Your task to perform on an android device: Open Google Chrome and open the bookmarks view Image 0: 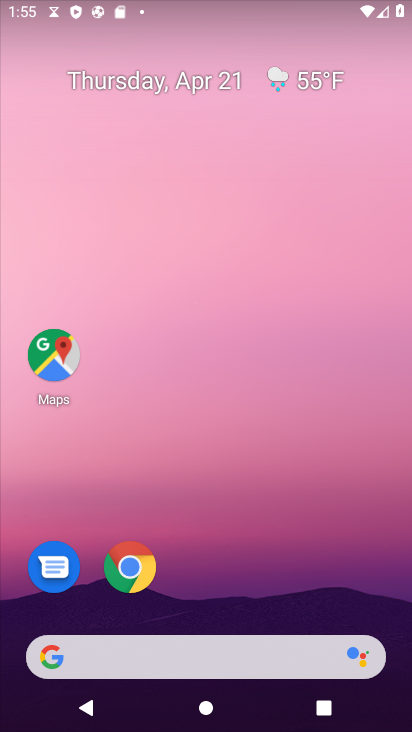
Step 0: drag from (171, 662) to (313, 129)
Your task to perform on an android device: Open Google Chrome and open the bookmarks view Image 1: 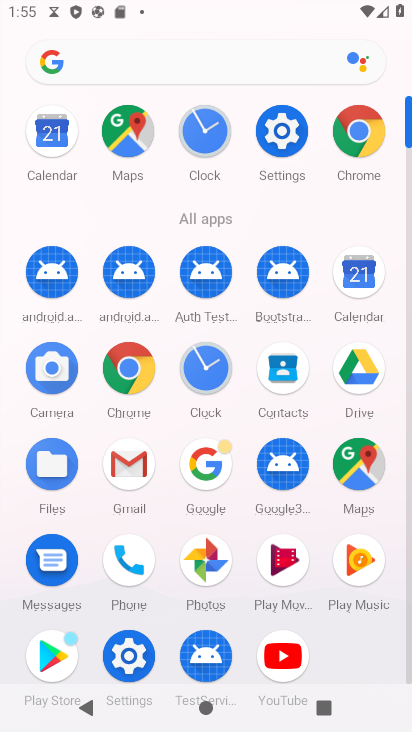
Step 1: click (365, 142)
Your task to perform on an android device: Open Google Chrome and open the bookmarks view Image 2: 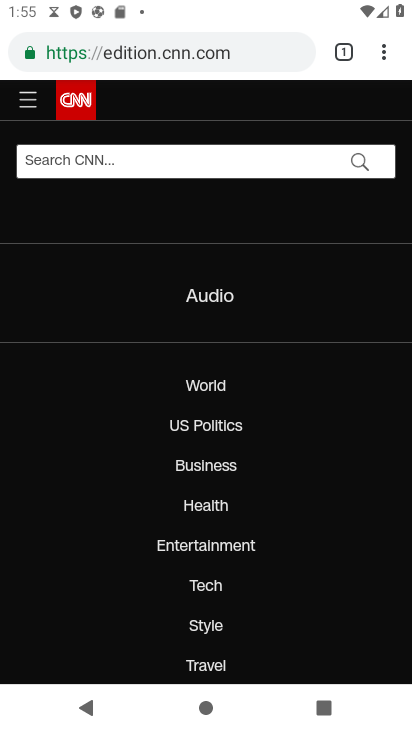
Step 2: click (390, 62)
Your task to perform on an android device: Open Google Chrome and open the bookmarks view Image 3: 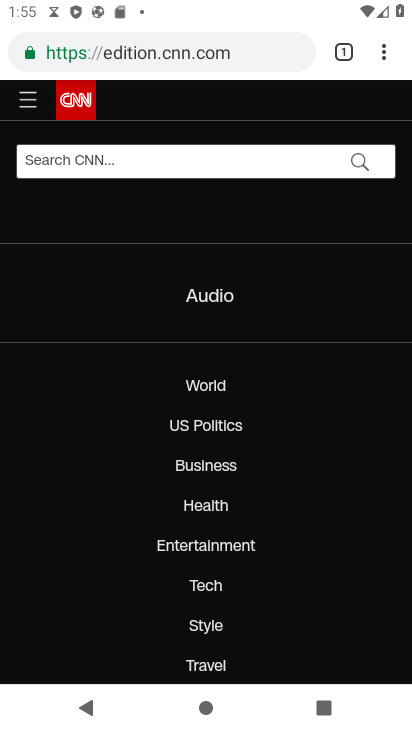
Step 3: click (376, 58)
Your task to perform on an android device: Open Google Chrome and open the bookmarks view Image 4: 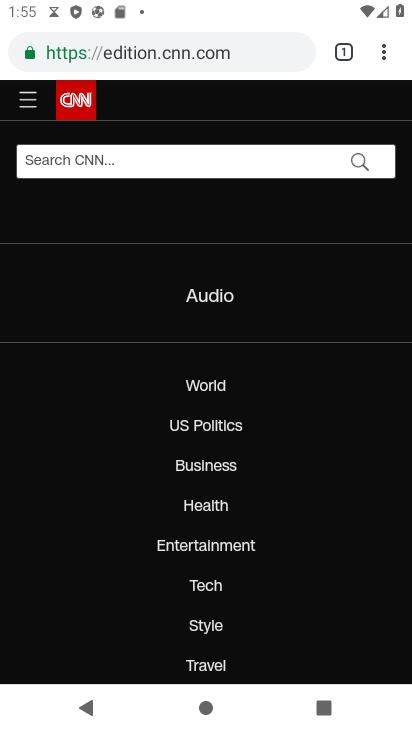
Step 4: click (375, 68)
Your task to perform on an android device: Open Google Chrome and open the bookmarks view Image 5: 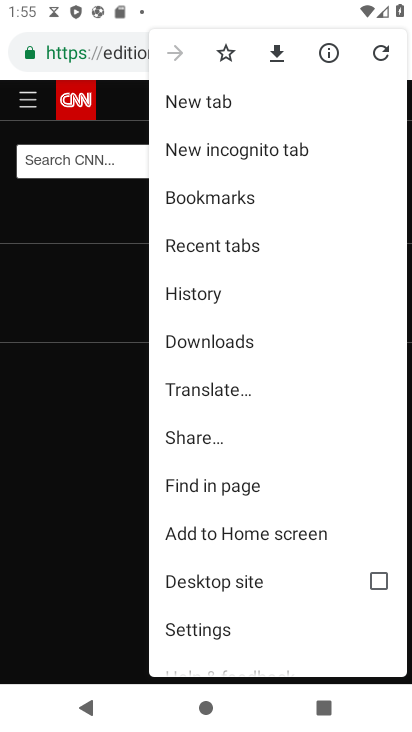
Step 5: click (221, 193)
Your task to perform on an android device: Open Google Chrome and open the bookmarks view Image 6: 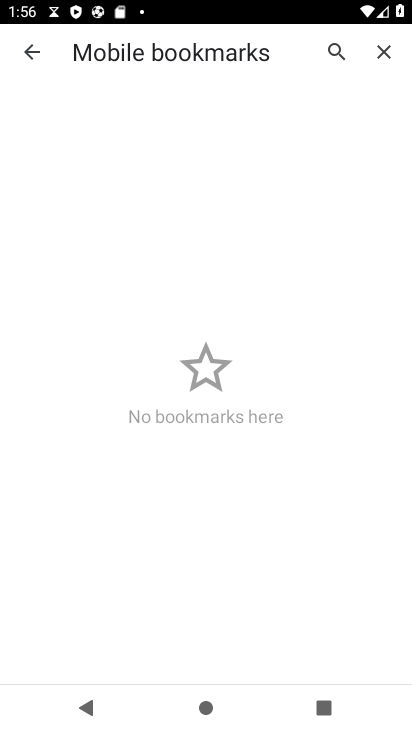
Step 6: task complete